Your task to perform on an android device: change notification settings in the gmail app Image 0: 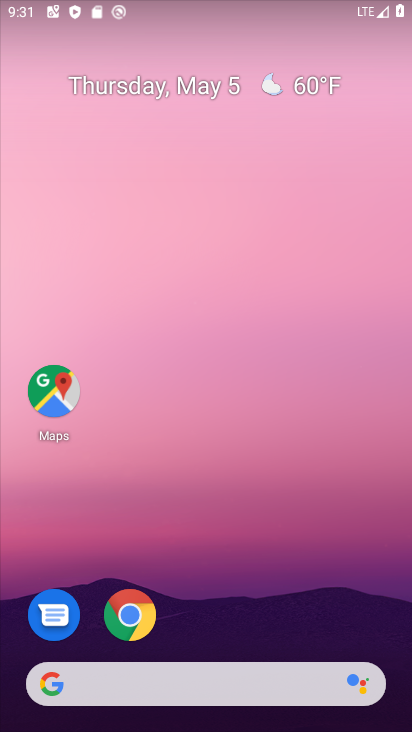
Step 0: drag from (222, 581) to (210, 52)
Your task to perform on an android device: change notification settings in the gmail app Image 1: 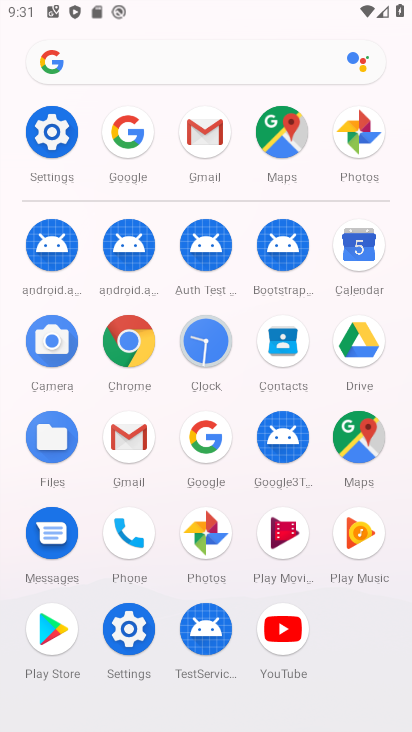
Step 1: click (200, 146)
Your task to perform on an android device: change notification settings in the gmail app Image 2: 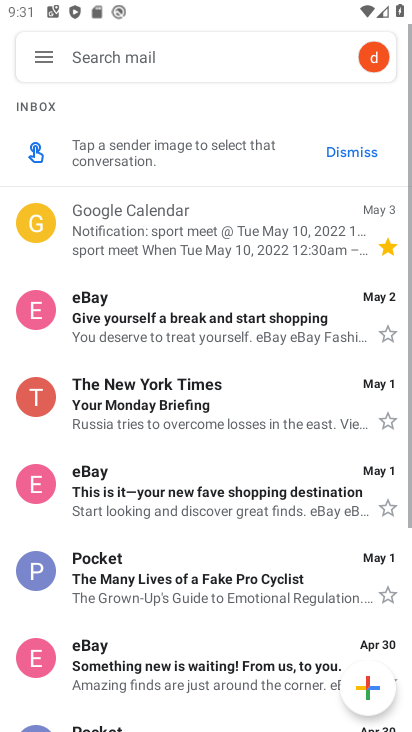
Step 2: click (44, 59)
Your task to perform on an android device: change notification settings in the gmail app Image 3: 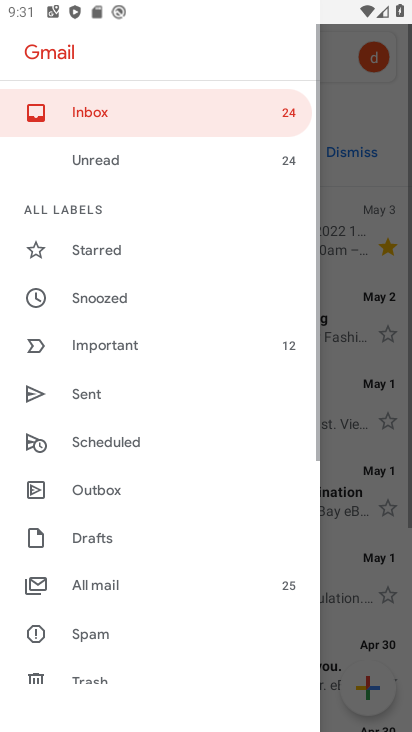
Step 3: drag from (148, 613) to (204, 191)
Your task to perform on an android device: change notification settings in the gmail app Image 4: 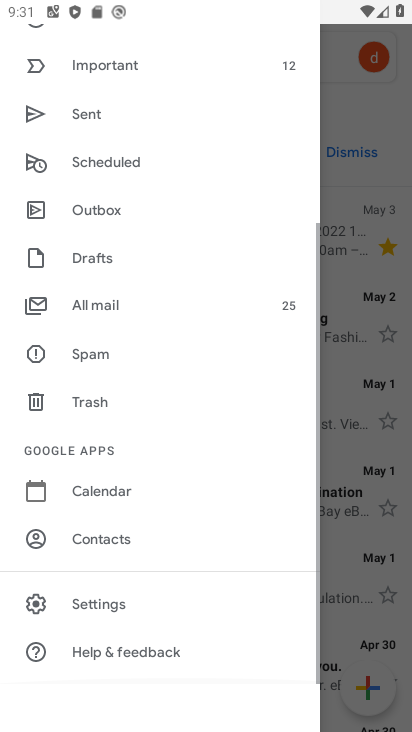
Step 4: click (73, 597)
Your task to perform on an android device: change notification settings in the gmail app Image 5: 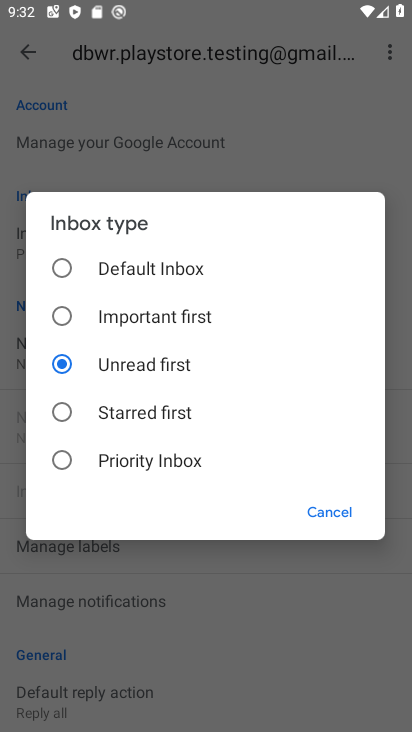
Step 5: click (339, 514)
Your task to perform on an android device: change notification settings in the gmail app Image 6: 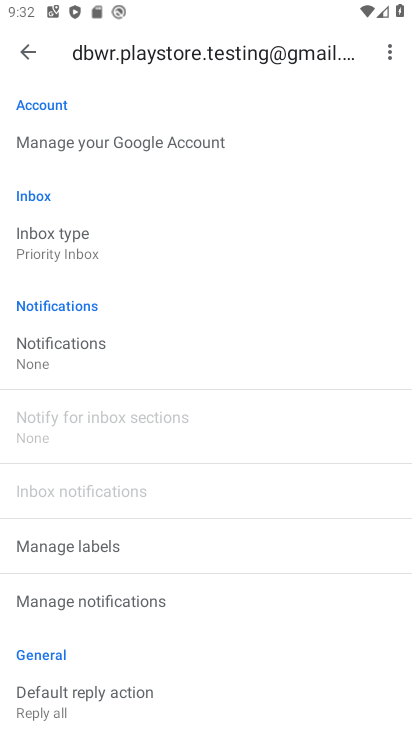
Step 6: click (94, 360)
Your task to perform on an android device: change notification settings in the gmail app Image 7: 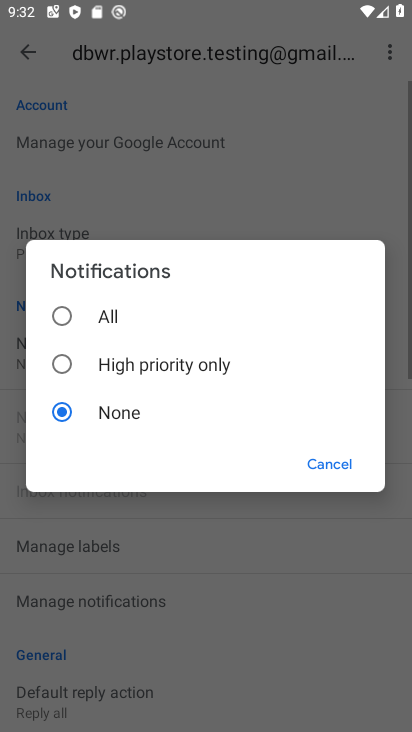
Step 7: click (66, 323)
Your task to perform on an android device: change notification settings in the gmail app Image 8: 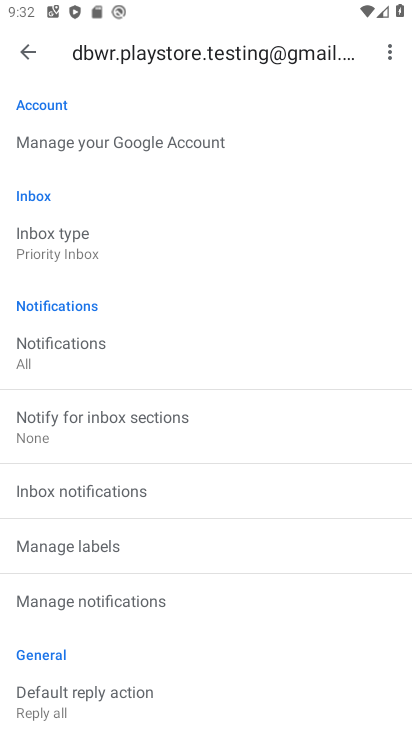
Step 8: task complete